Your task to perform on an android device: install app "PUBG MOBILE" Image 0: 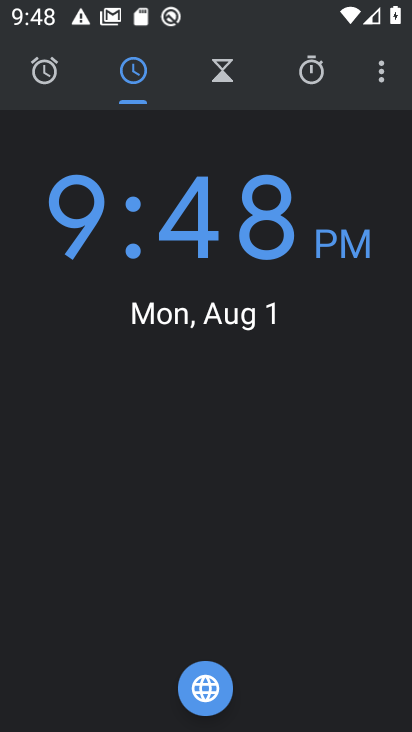
Step 0: press home button
Your task to perform on an android device: install app "PUBG MOBILE" Image 1: 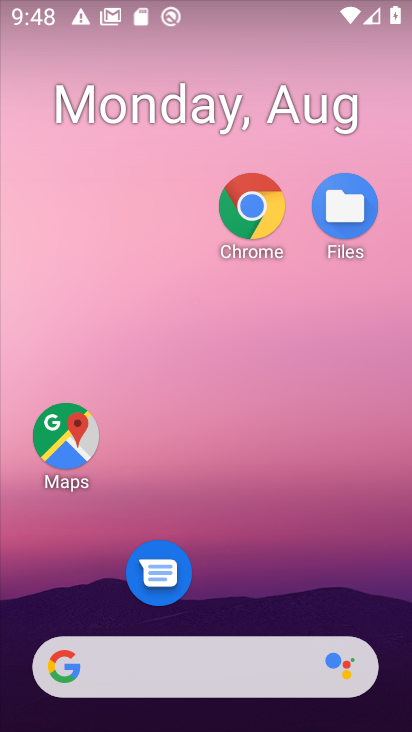
Step 1: drag from (207, 643) to (307, 62)
Your task to perform on an android device: install app "PUBG MOBILE" Image 2: 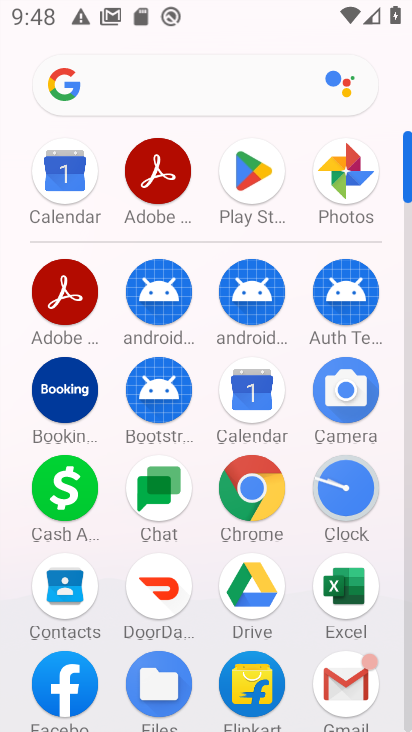
Step 2: drag from (278, 556) to (222, 415)
Your task to perform on an android device: install app "PUBG MOBILE" Image 3: 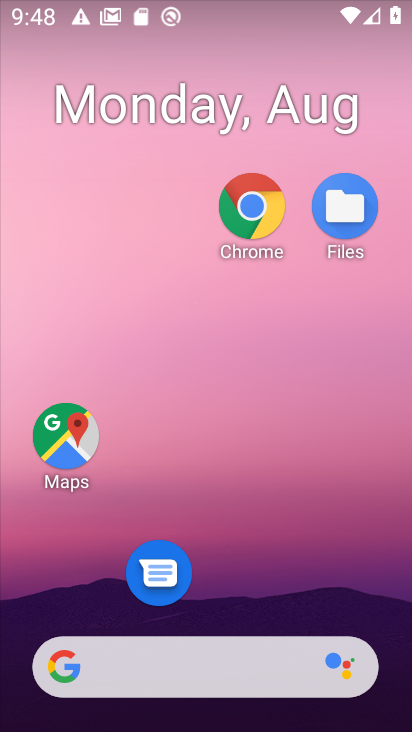
Step 3: drag from (245, 643) to (251, 213)
Your task to perform on an android device: install app "PUBG MOBILE" Image 4: 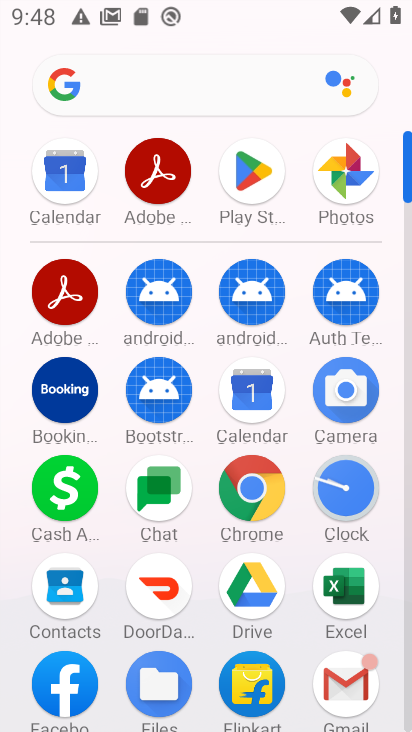
Step 4: click (234, 158)
Your task to perform on an android device: install app "PUBG MOBILE" Image 5: 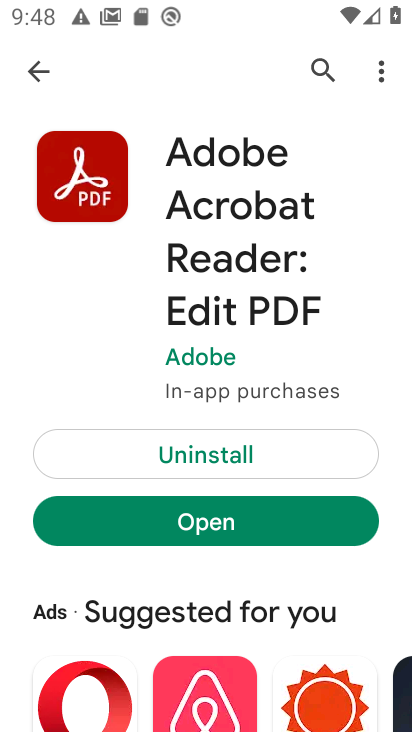
Step 5: click (321, 67)
Your task to perform on an android device: install app "PUBG MOBILE" Image 6: 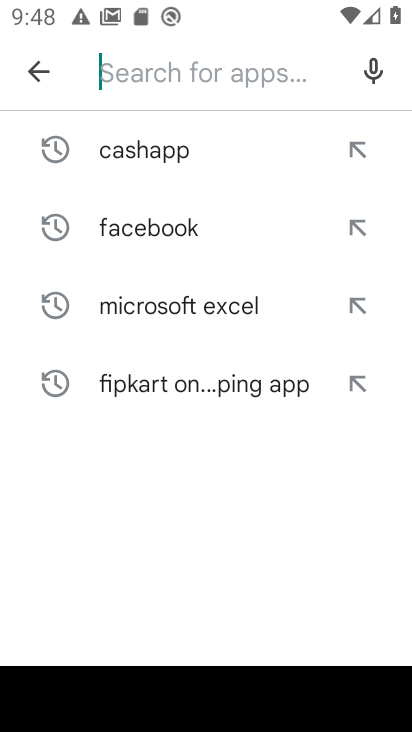
Step 6: type "pubg mobile"
Your task to perform on an android device: install app "PUBG MOBILE" Image 7: 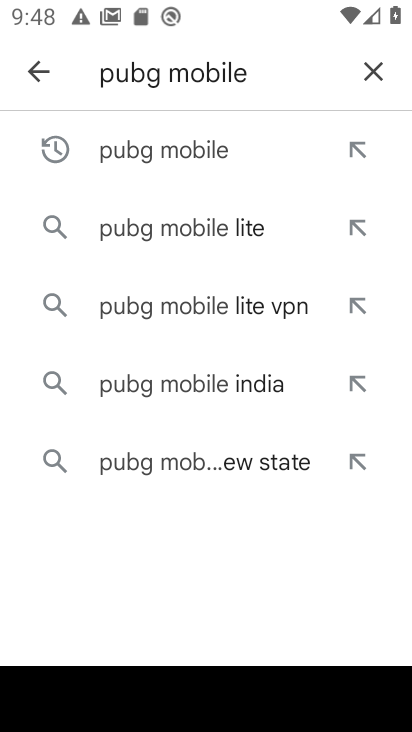
Step 7: click (123, 149)
Your task to perform on an android device: install app "PUBG MOBILE" Image 8: 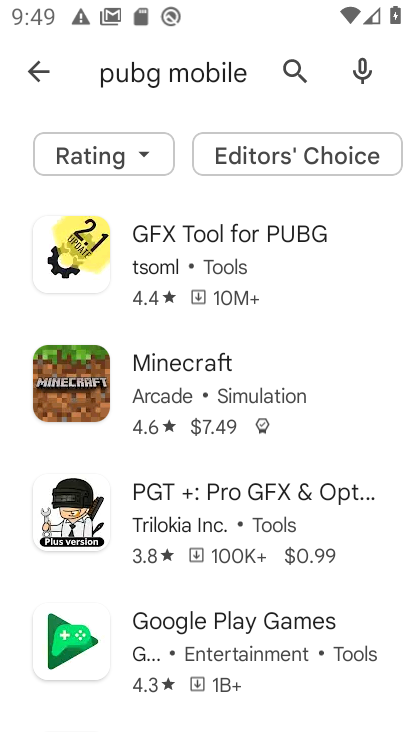
Step 8: task complete